Your task to perform on an android device: Go to sound settings Image 0: 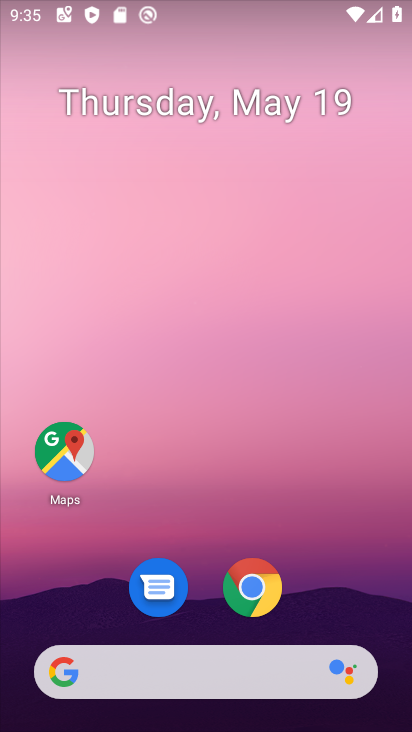
Step 0: drag from (194, 619) to (145, 185)
Your task to perform on an android device: Go to sound settings Image 1: 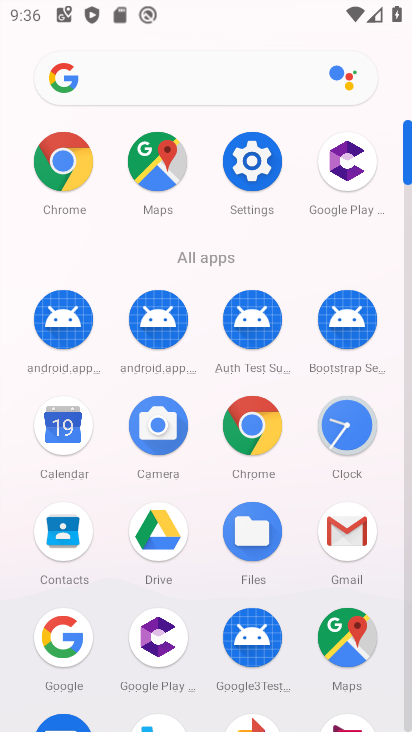
Step 1: click (249, 168)
Your task to perform on an android device: Go to sound settings Image 2: 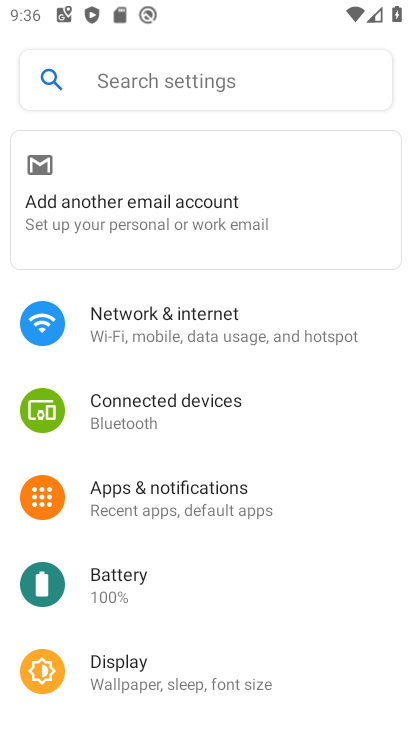
Step 2: drag from (117, 639) to (200, 246)
Your task to perform on an android device: Go to sound settings Image 3: 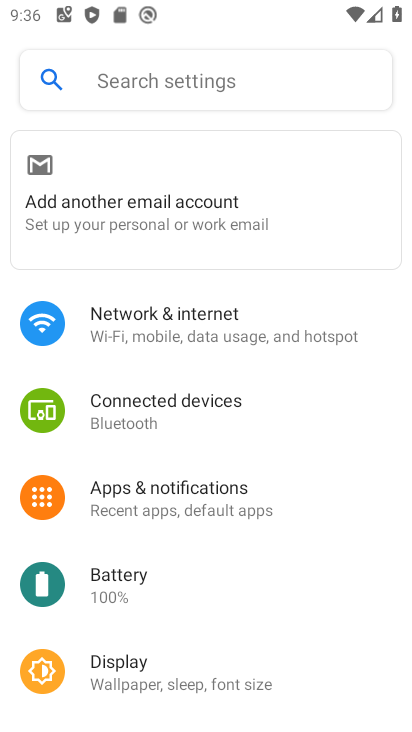
Step 3: drag from (189, 604) to (175, 135)
Your task to perform on an android device: Go to sound settings Image 4: 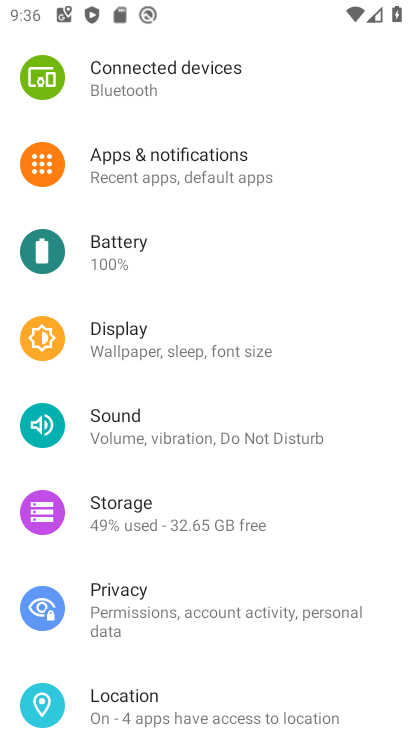
Step 4: click (166, 447)
Your task to perform on an android device: Go to sound settings Image 5: 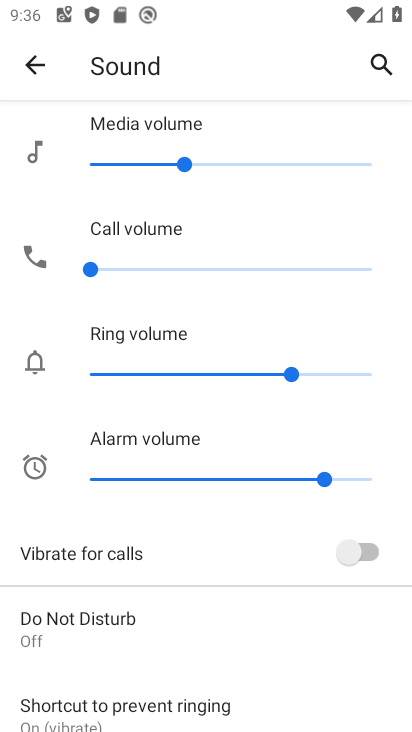
Step 5: task complete